Your task to perform on an android device: Do I have any events today? Image 0: 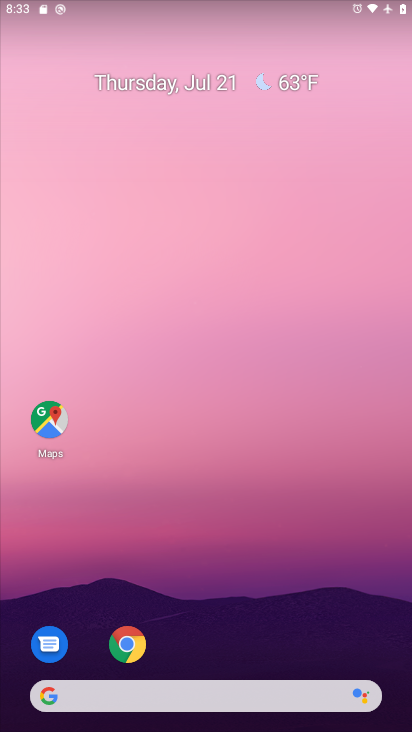
Step 0: drag from (237, 385) to (221, 266)
Your task to perform on an android device: Do I have any events today? Image 1: 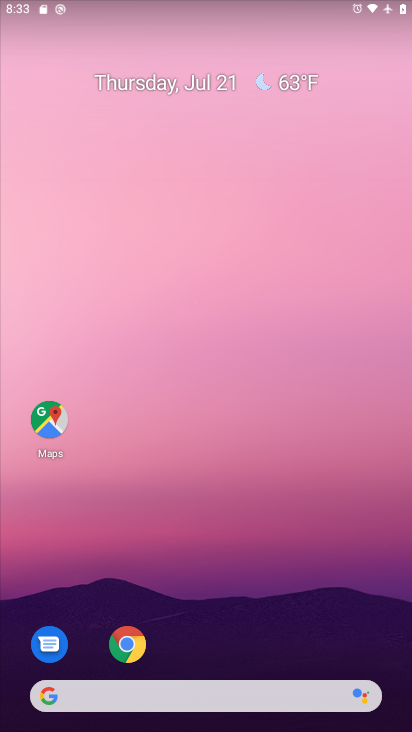
Step 1: drag from (218, 651) to (178, 88)
Your task to perform on an android device: Do I have any events today? Image 2: 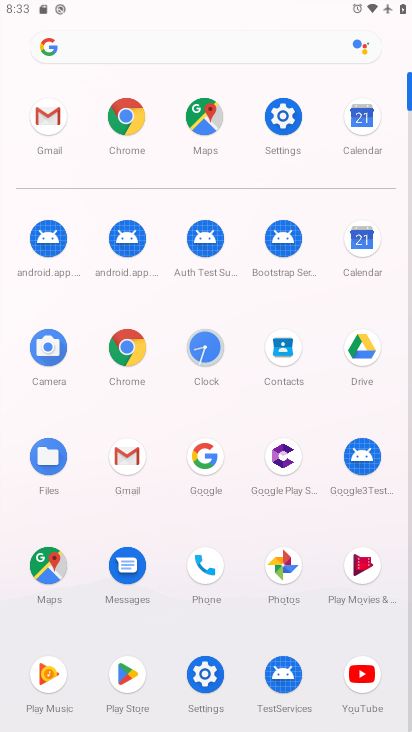
Step 2: click (372, 109)
Your task to perform on an android device: Do I have any events today? Image 3: 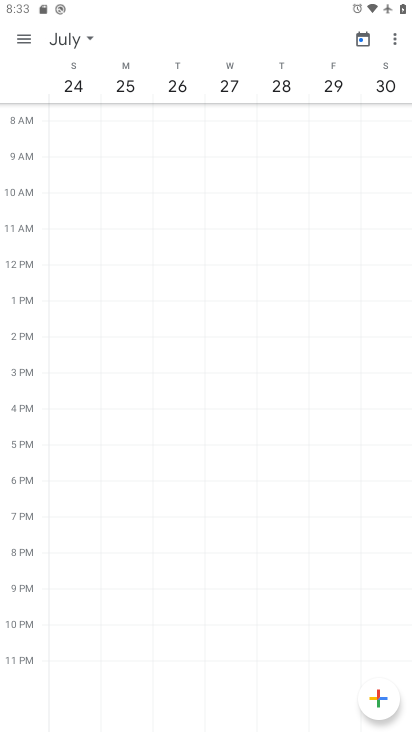
Step 3: drag from (82, 93) to (362, 104)
Your task to perform on an android device: Do I have any events today? Image 4: 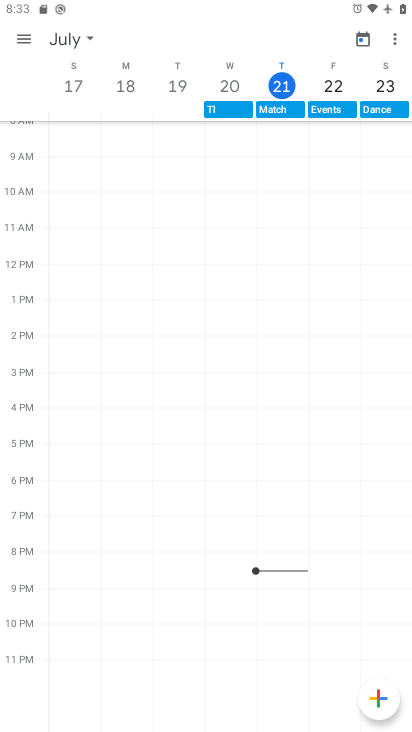
Step 4: click (336, 88)
Your task to perform on an android device: Do I have any events today? Image 5: 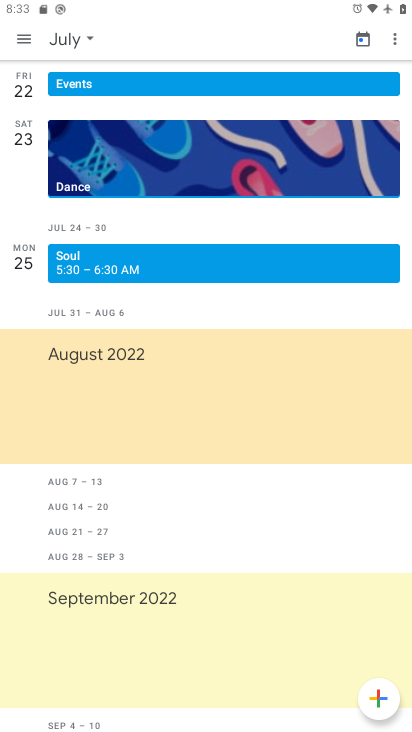
Step 5: task complete